Your task to perform on an android device: What's on my calendar today? Image 0: 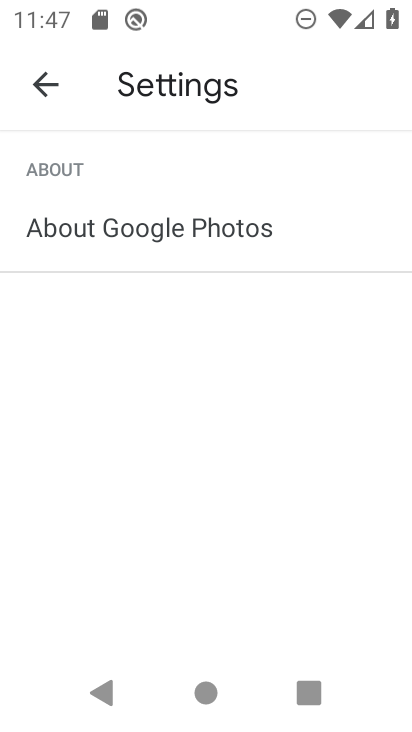
Step 0: press home button
Your task to perform on an android device: What's on my calendar today? Image 1: 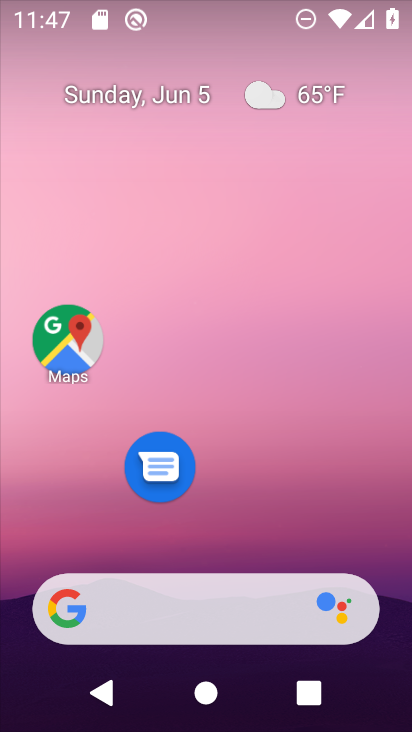
Step 1: drag from (302, 589) to (302, 161)
Your task to perform on an android device: What's on my calendar today? Image 2: 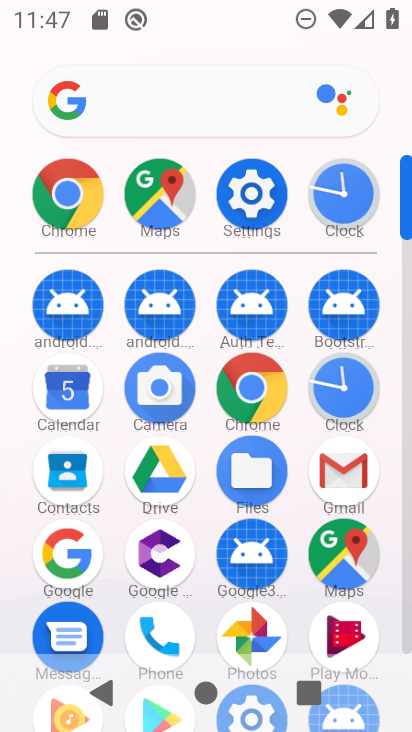
Step 2: click (41, 369)
Your task to perform on an android device: What's on my calendar today? Image 3: 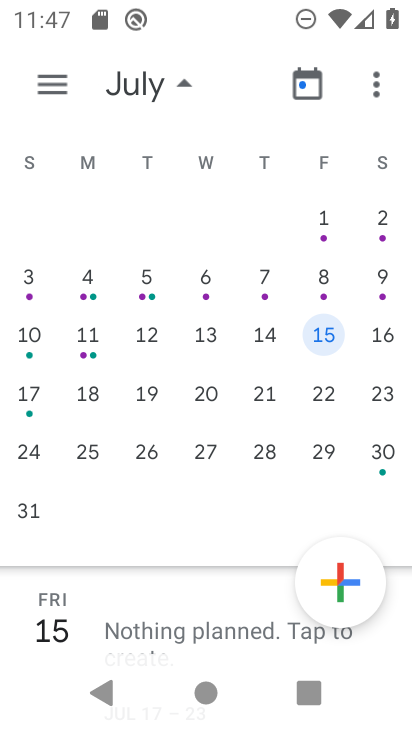
Step 3: click (170, 87)
Your task to perform on an android device: What's on my calendar today? Image 4: 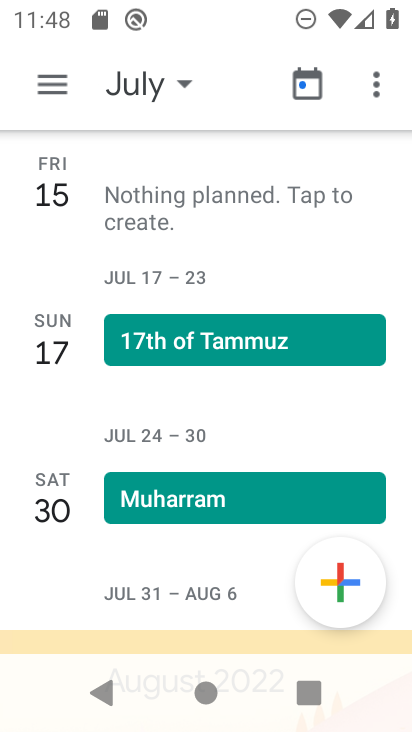
Step 4: task complete